Your task to perform on an android device: check google app version Image 0: 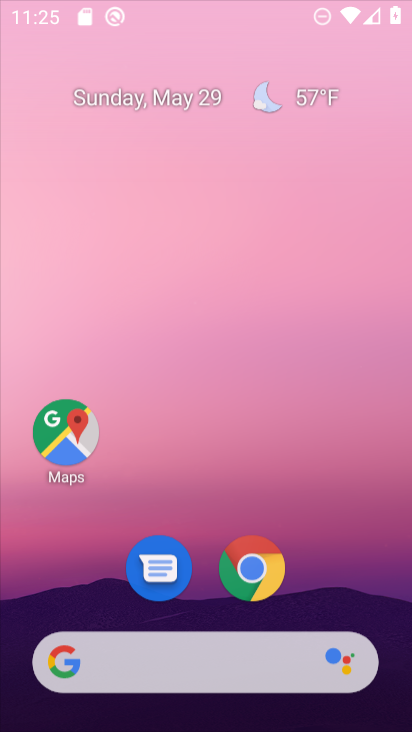
Step 0: click (280, 61)
Your task to perform on an android device: check google app version Image 1: 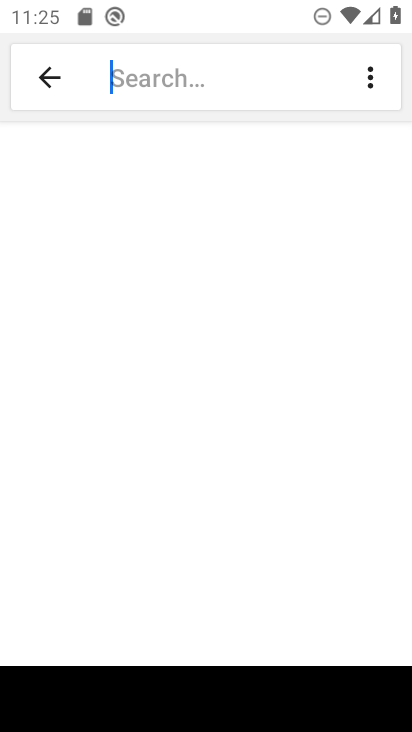
Step 1: press home button
Your task to perform on an android device: check google app version Image 2: 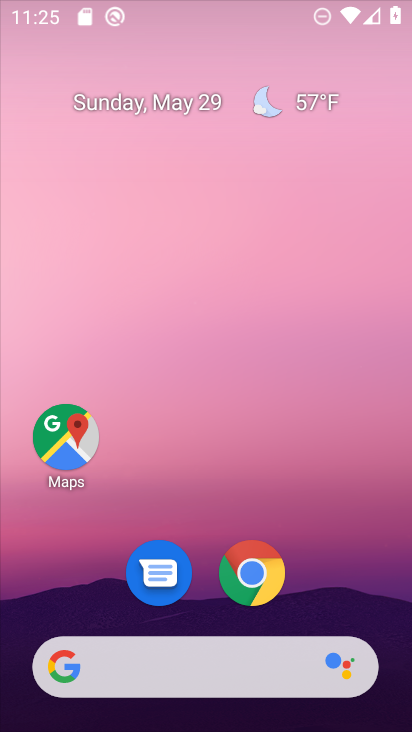
Step 2: drag from (237, 680) to (227, 48)
Your task to perform on an android device: check google app version Image 3: 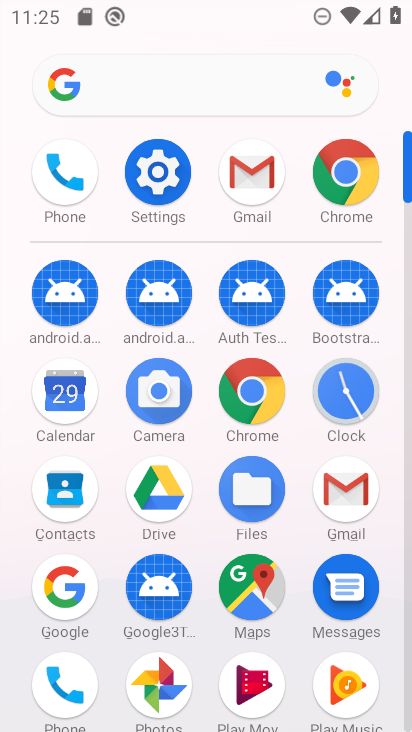
Step 3: click (87, 592)
Your task to perform on an android device: check google app version Image 4: 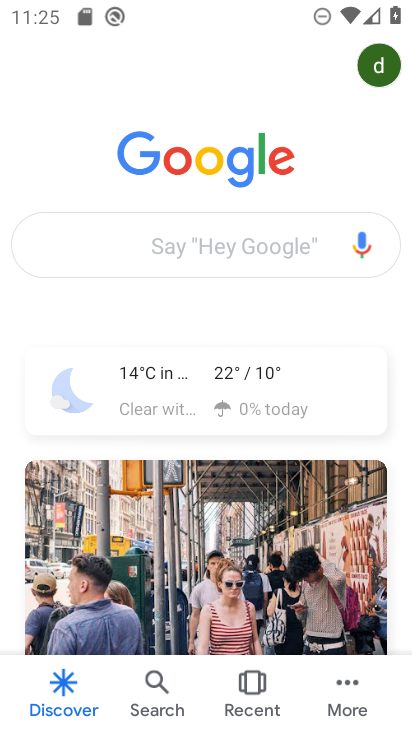
Step 4: click (380, 61)
Your task to perform on an android device: check google app version Image 5: 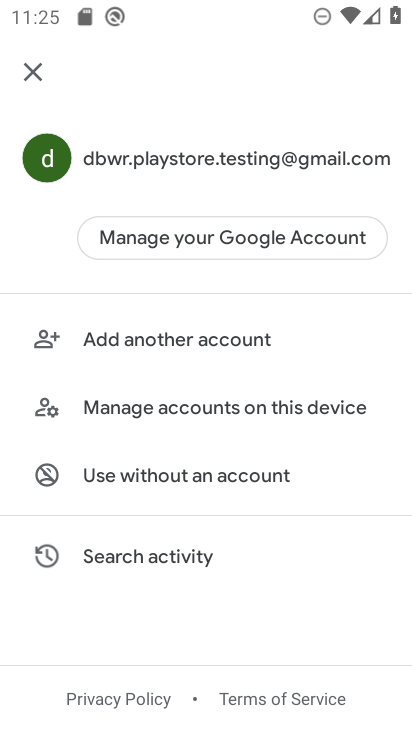
Step 5: click (176, 554)
Your task to perform on an android device: check google app version Image 6: 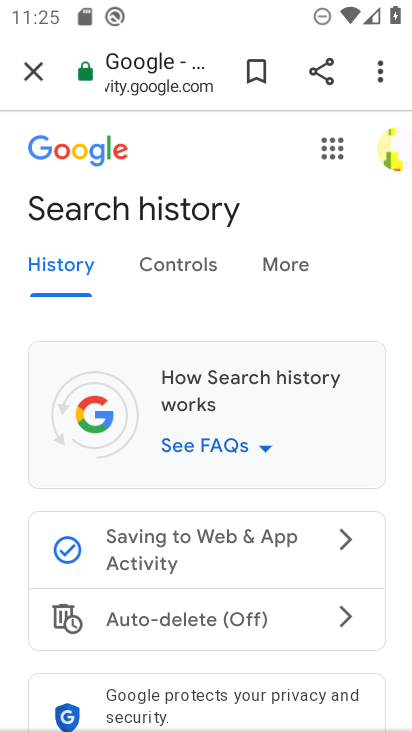
Step 6: click (381, 69)
Your task to perform on an android device: check google app version Image 7: 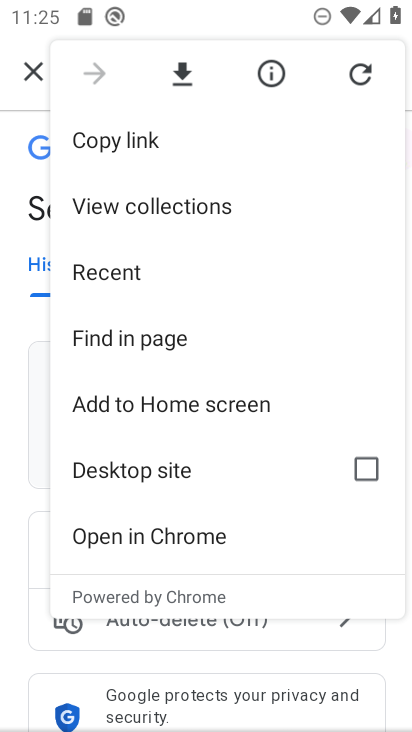
Step 7: drag from (243, 508) to (271, 173)
Your task to perform on an android device: check google app version Image 8: 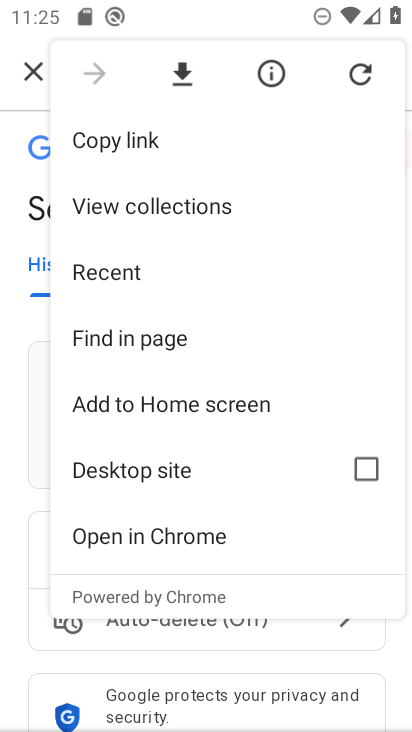
Step 8: press back button
Your task to perform on an android device: check google app version Image 9: 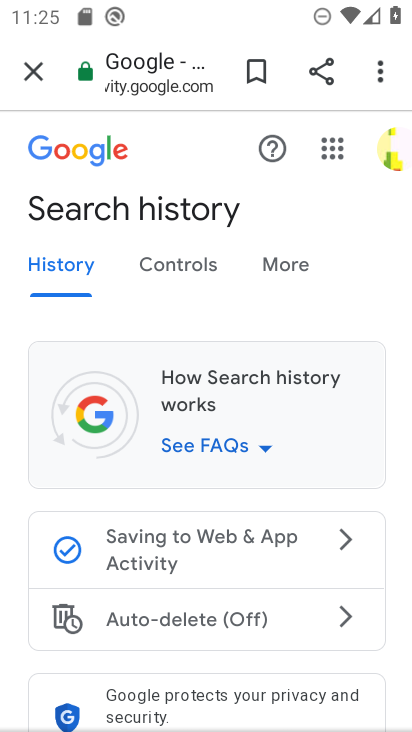
Step 9: press back button
Your task to perform on an android device: check google app version Image 10: 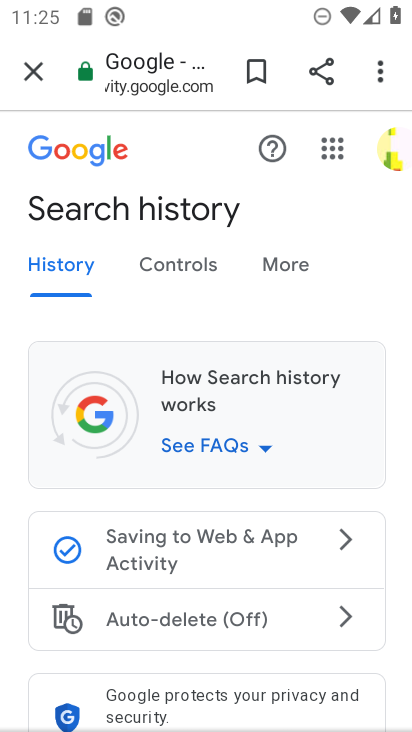
Step 10: press back button
Your task to perform on an android device: check google app version Image 11: 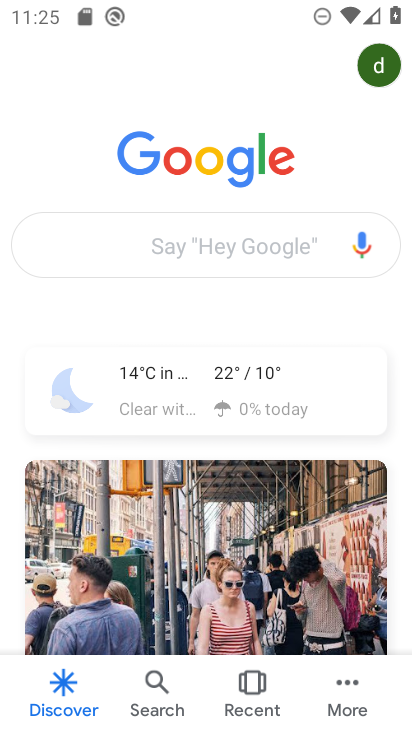
Step 11: click (353, 692)
Your task to perform on an android device: check google app version Image 12: 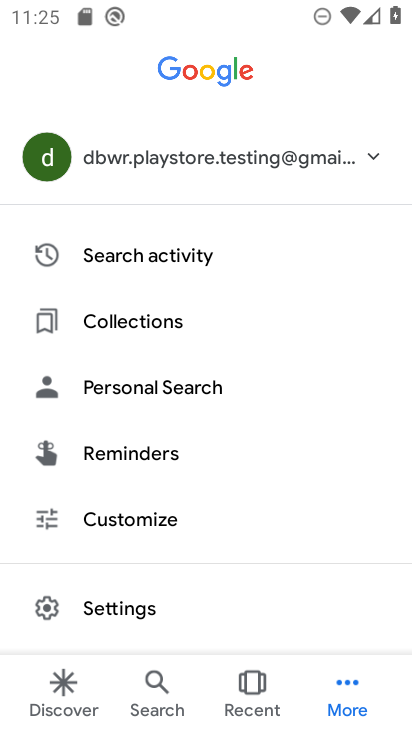
Step 12: drag from (207, 624) to (214, 168)
Your task to perform on an android device: check google app version Image 13: 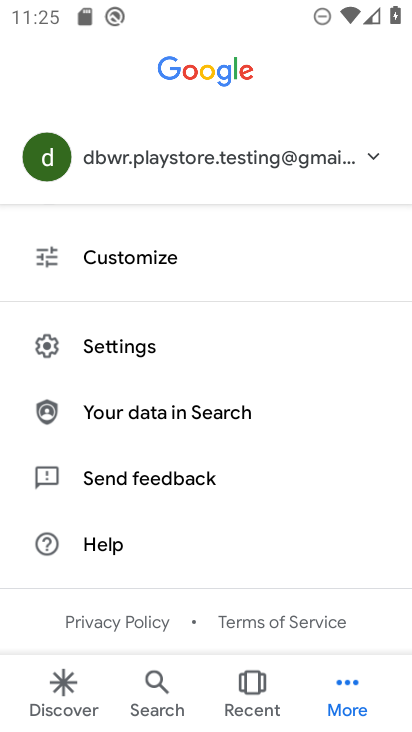
Step 13: click (134, 540)
Your task to perform on an android device: check google app version Image 14: 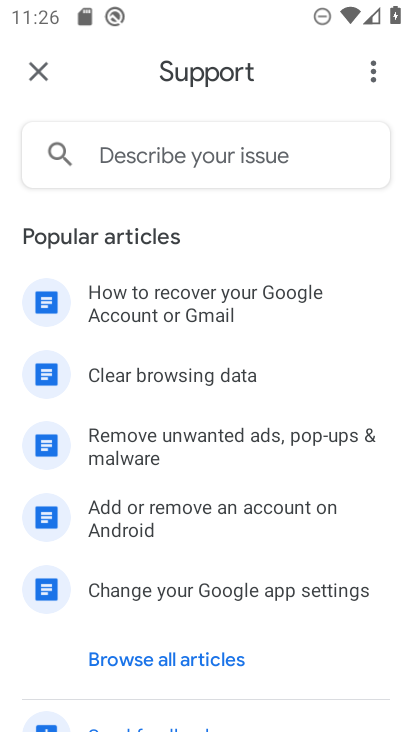
Step 14: click (369, 77)
Your task to perform on an android device: check google app version Image 15: 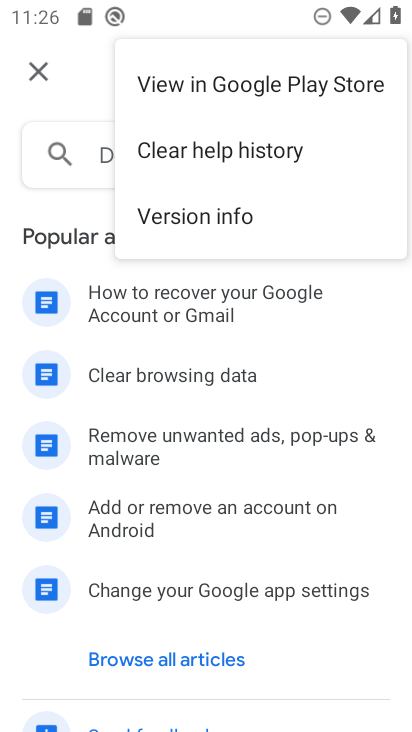
Step 15: click (282, 227)
Your task to perform on an android device: check google app version Image 16: 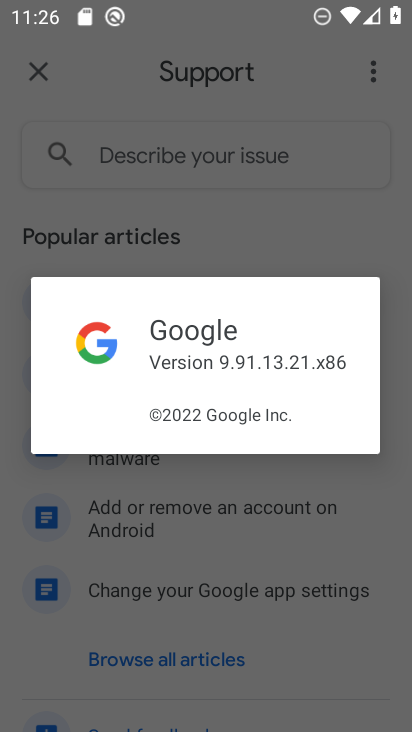
Step 16: task complete